Your task to perform on an android device: all mails in gmail Image 0: 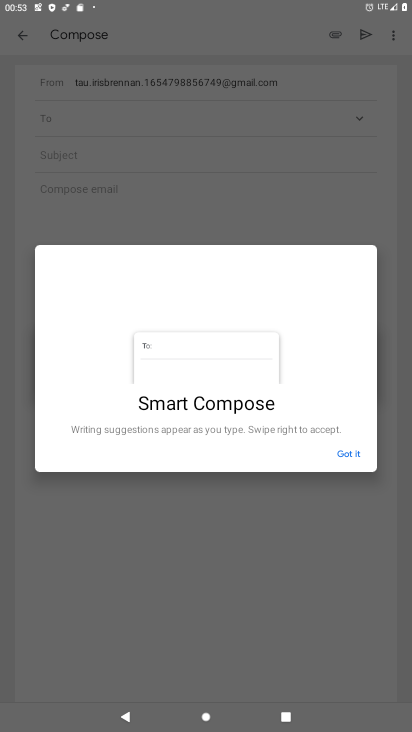
Step 0: press home button
Your task to perform on an android device: all mails in gmail Image 1: 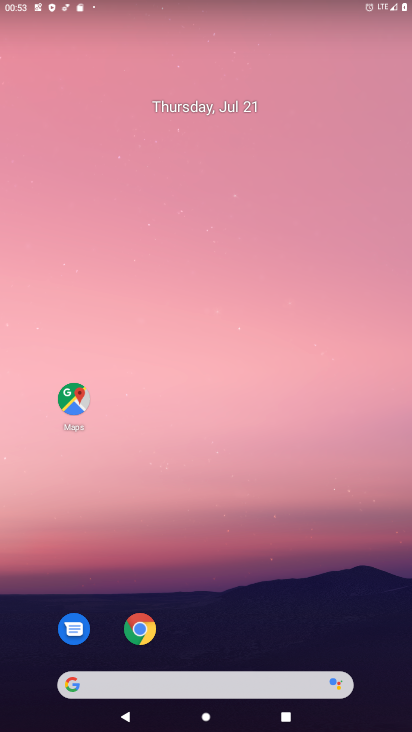
Step 1: drag from (250, 388) to (284, 99)
Your task to perform on an android device: all mails in gmail Image 2: 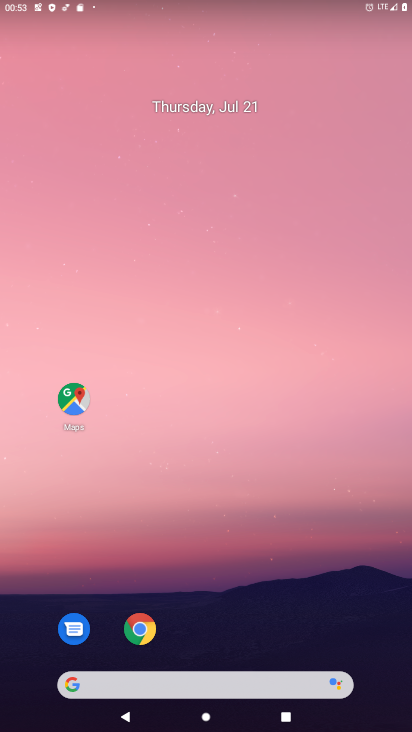
Step 2: drag from (344, 613) to (267, 64)
Your task to perform on an android device: all mails in gmail Image 3: 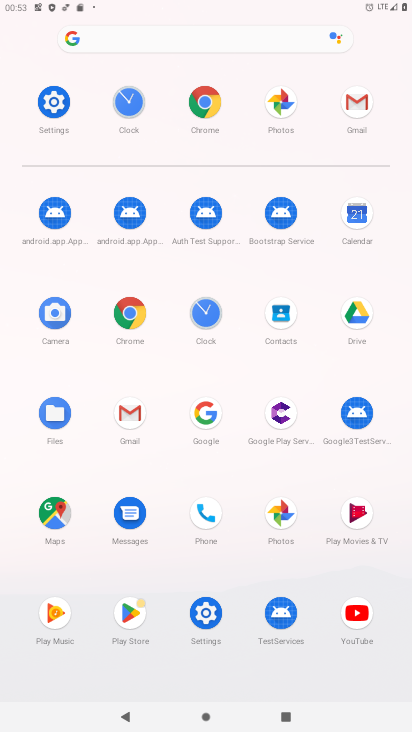
Step 3: click (368, 109)
Your task to perform on an android device: all mails in gmail Image 4: 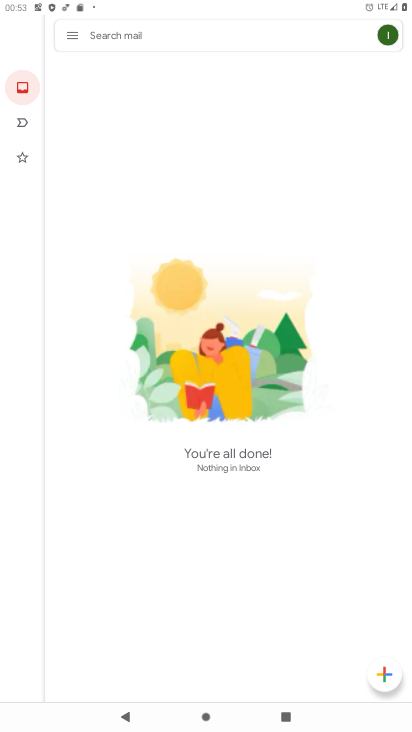
Step 4: click (73, 23)
Your task to perform on an android device: all mails in gmail Image 5: 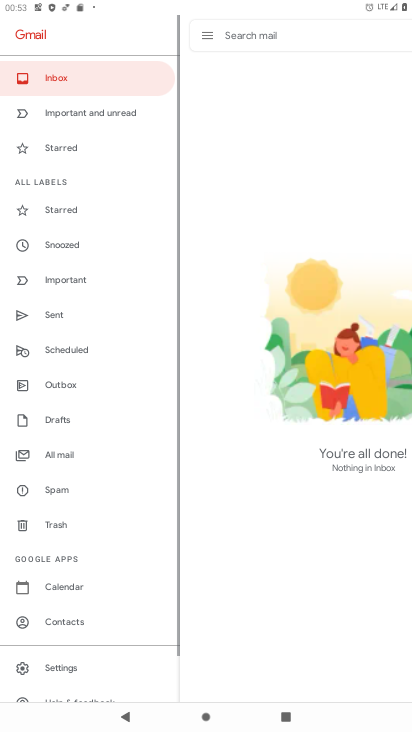
Step 5: click (72, 40)
Your task to perform on an android device: all mails in gmail Image 6: 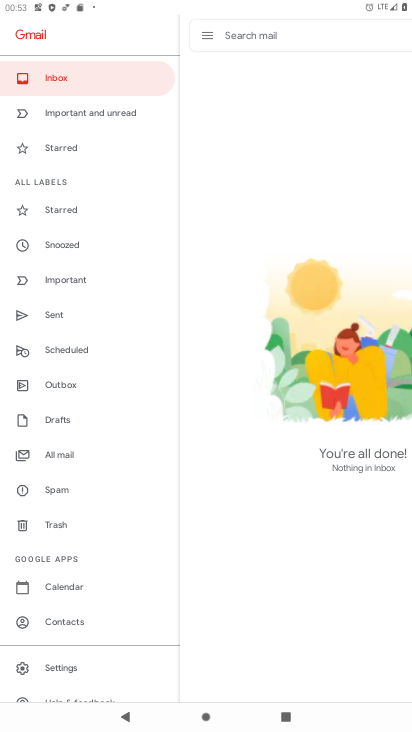
Step 6: click (62, 461)
Your task to perform on an android device: all mails in gmail Image 7: 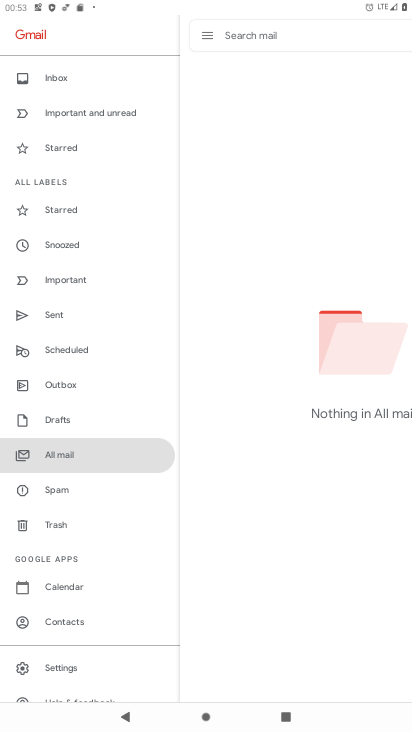
Step 7: task complete